Your task to perform on an android device: Go to Yahoo.com Image 0: 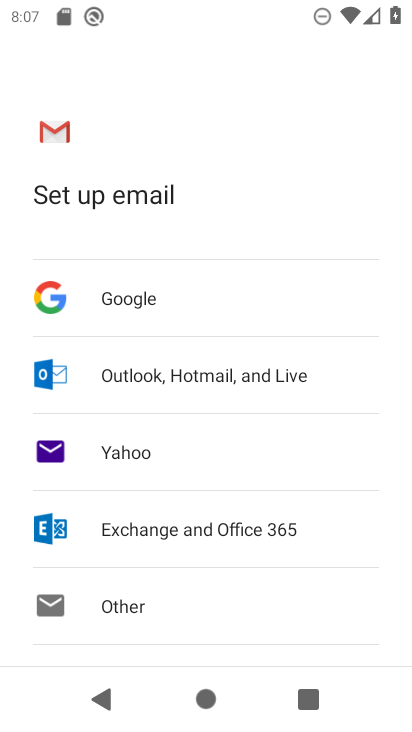
Step 0: press home button
Your task to perform on an android device: Go to Yahoo.com Image 1: 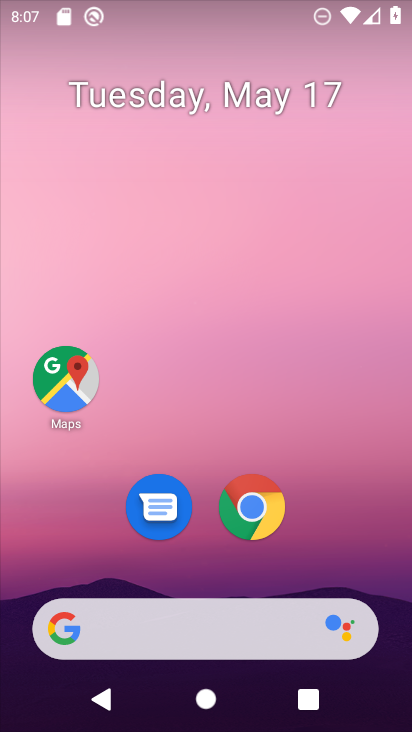
Step 1: click (255, 514)
Your task to perform on an android device: Go to Yahoo.com Image 2: 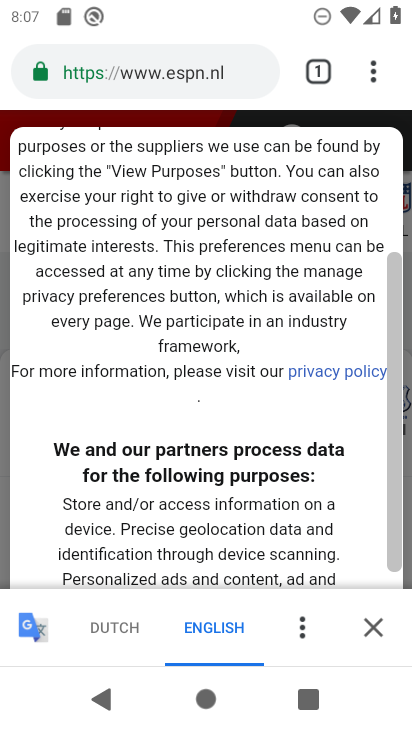
Step 2: click (121, 69)
Your task to perform on an android device: Go to Yahoo.com Image 3: 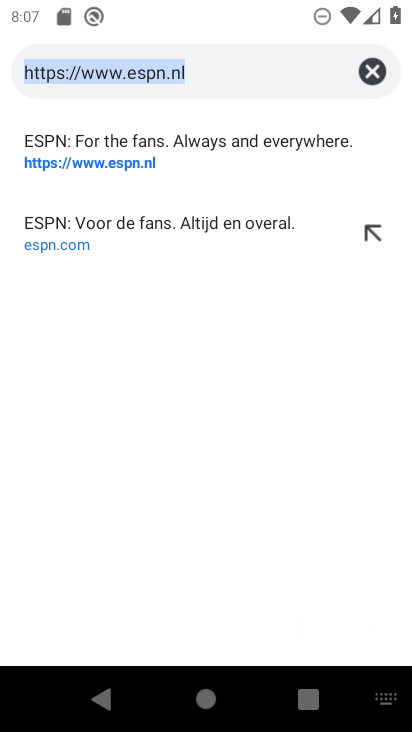
Step 3: click (377, 59)
Your task to perform on an android device: Go to Yahoo.com Image 4: 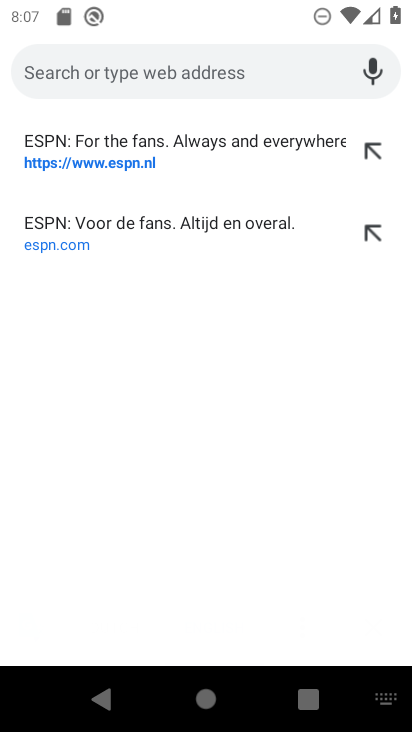
Step 4: type "yahoo.com"
Your task to perform on an android device: Go to Yahoo.com Image 5: 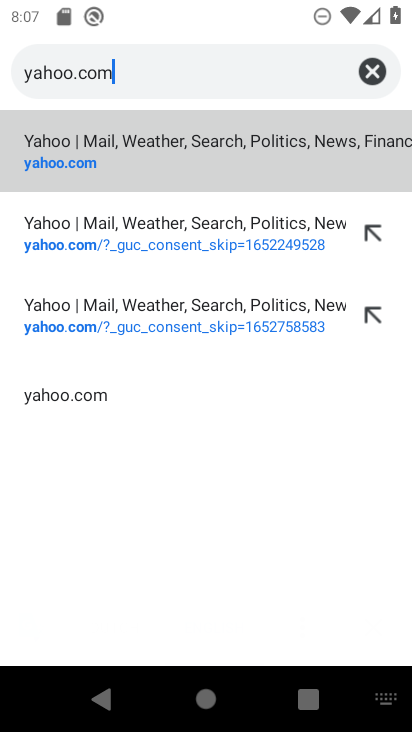
Step 5: click (93, 152)
Your task to perform on an android device: Go to Yahoo.com Image 6: 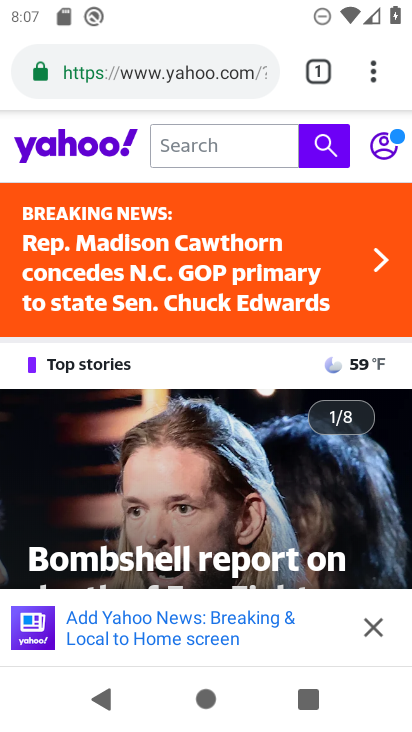
Step 6: task complete